Your task to perform on an android device: toggle sleep mode Image 0: 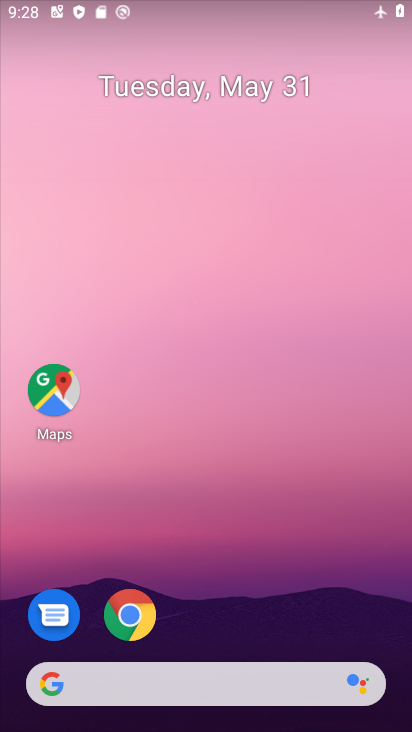
Step 0: drag from (346, 637) to (266, 28)
Your task to perform on an android device: toggle sleep mode Image 1: 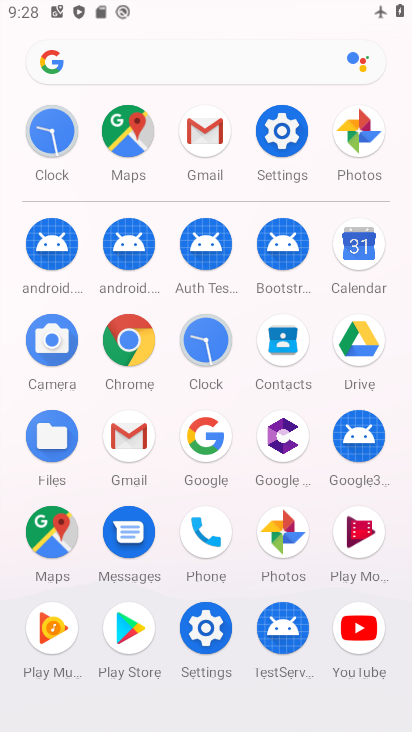
Step 1: click (210, 629)
Your task to perform on an android device: toggle sleep mode Image 2: 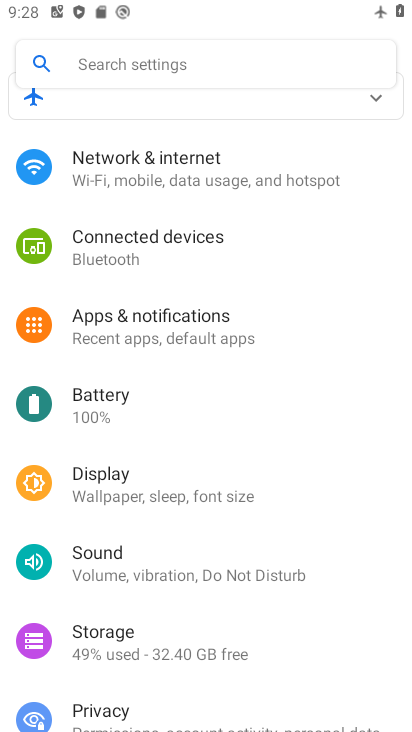
Step 2: click (153, 488)
Your task to perform on an android device: toggle sleep mode Image 3: 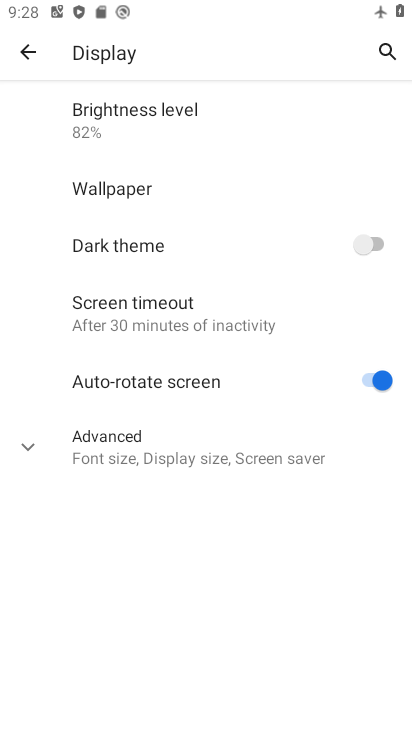
Step 3: click (33, 444)
Your task to perform on an android device: toggle sleep mode Image 4: 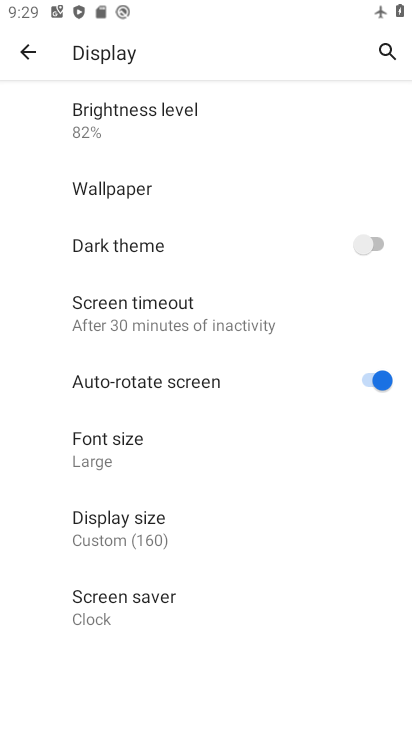
Step 4: task complete